Your task to perform on an android device: Open the Play Movies app and select the watchlist tab. Image 0: 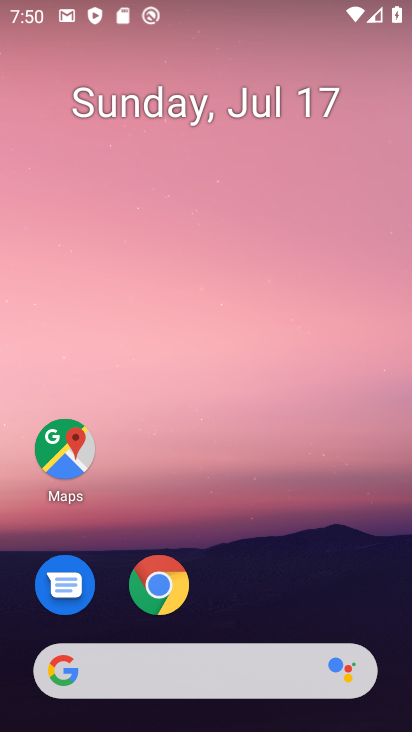
Step 0: drag from (229, 597) to (304, 181)
Your task to perform on an android device: Open the Play Movies app and select the watchlist tab. Image 1: 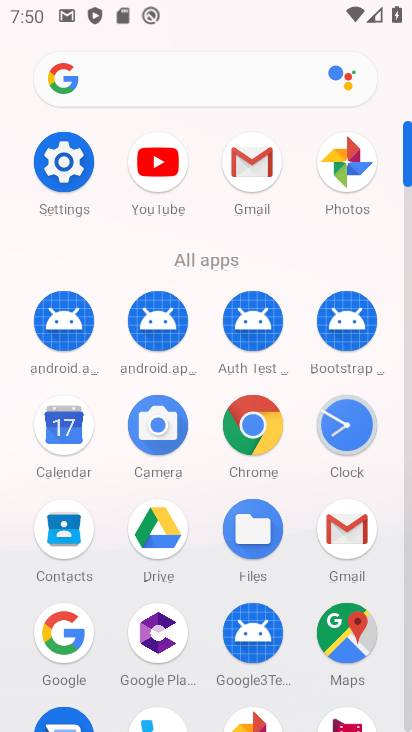
Step 1: drag from (247, 666) to (304, 232)
Your task to perform on an android device: Open the Play Movies app and select the watchlist tab. Image 2: 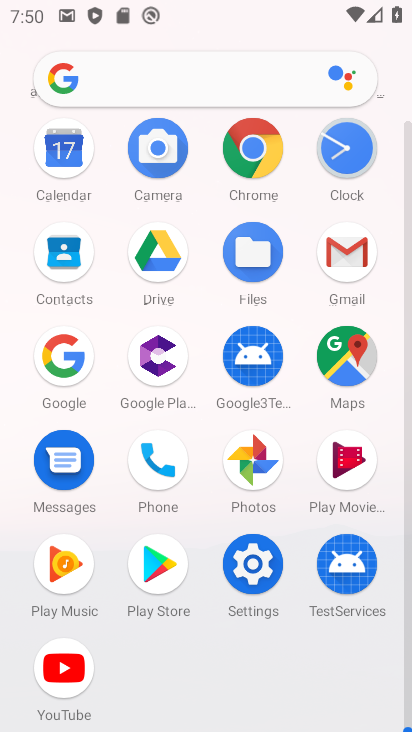
Step 2: click (344, 458)
Your task to perform on an android device: Open the Play Movies app and select the watchlist tab. Image 3: 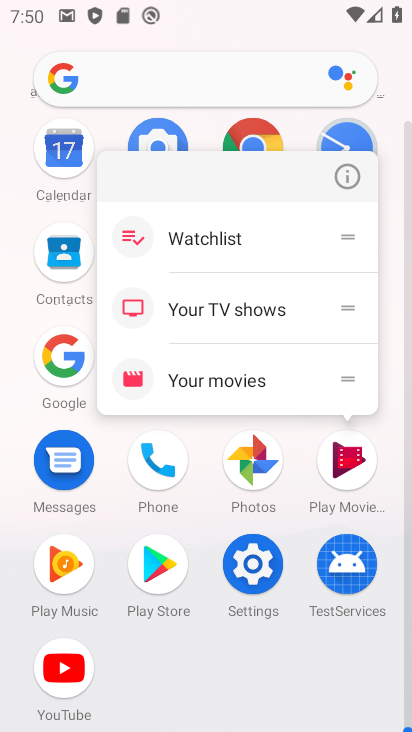
Step 3: click (345, 460)
Your task to perform on an android device: Open the Play Movies app and select the watchlist tab. Image 4: 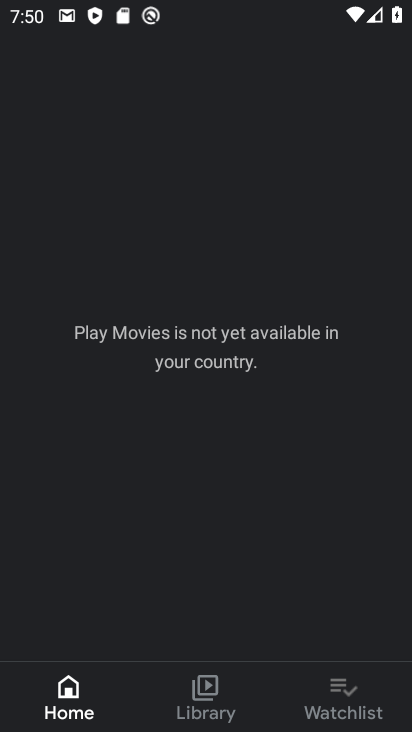
Step 4: click (353, 704)
Your task to perform on an android device: Open the Play Movies app and select the watchlist tab. Image 5: 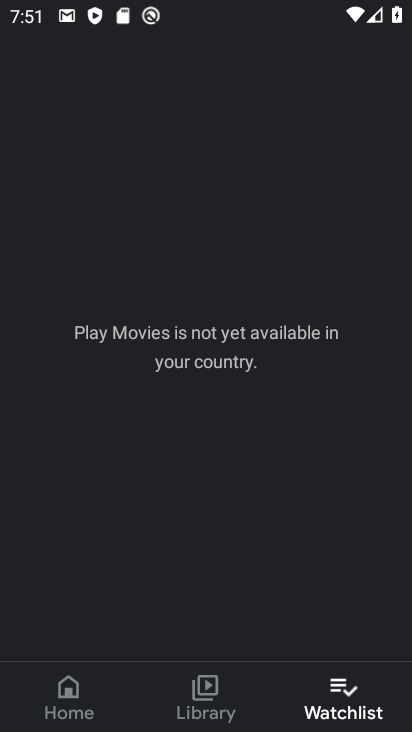
Step 5: task complete